Your task to perform on an android device: turn notification dots off Image 0: 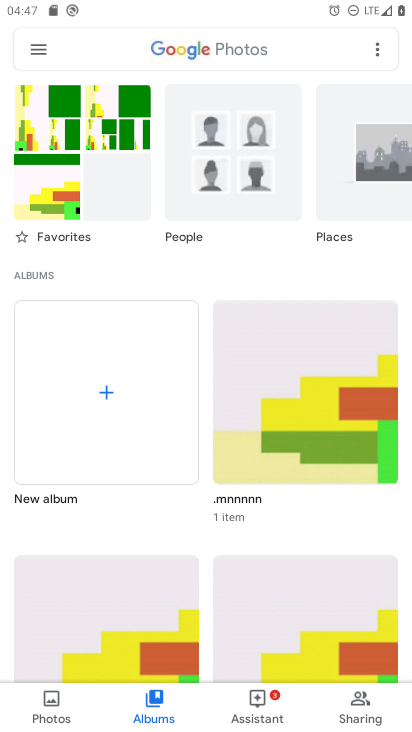
Step 0: press back button
Your task to perform on an android device: turn notification dots off Image 1: 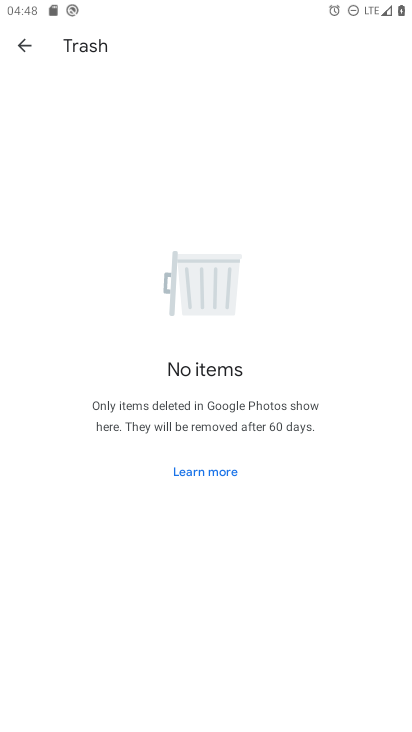
Step 1: press back button
Your task to perform on an android device: turn notification dots off Image 2: 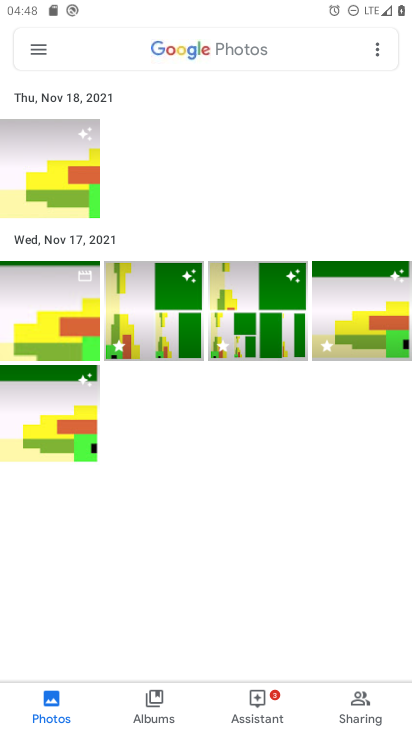
Step 2: press home button
Your task to perform on an android device: turn notification dots off Image 3: 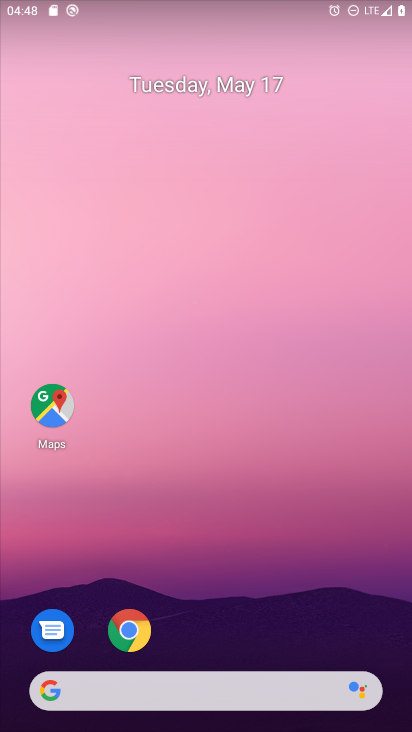
Step 3: drag from (204, 582) to (252, 38)
Your task to perform on an android device: turn notification dots off Image 4: 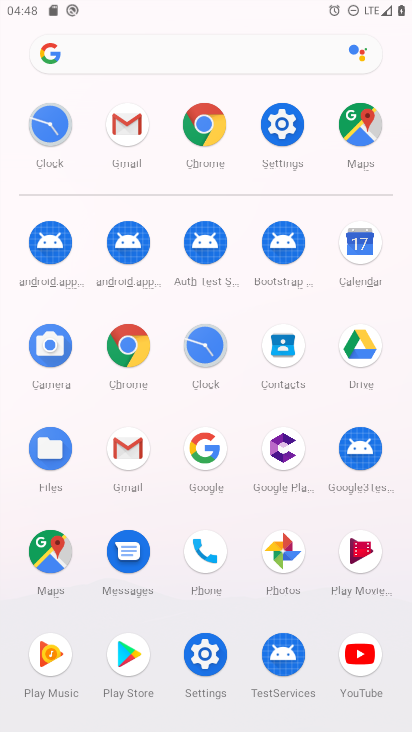
Step 4: click (289, 129)
Your task to perform on an android device: turn notification dots off Image 5: 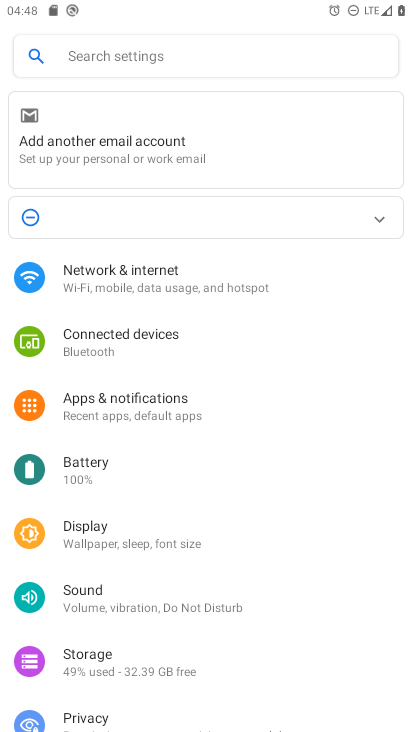
Step 5: click (123, 400)
Your task to perform on an android device: turn notification dots off Image 6: 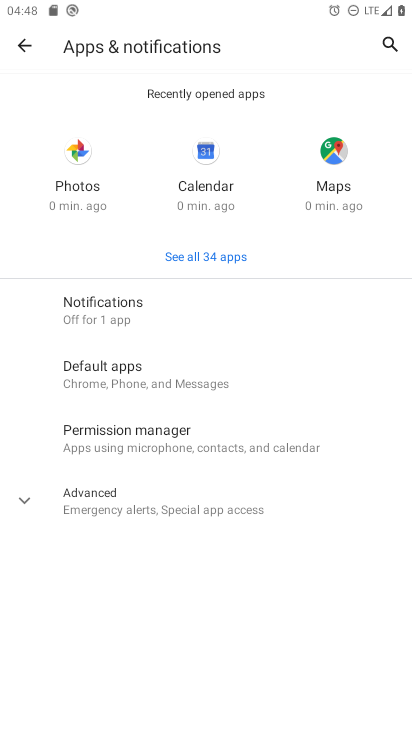
Step 6: click (144, 310)
Your task to perform on an android device: turn notification dots off Image 7: 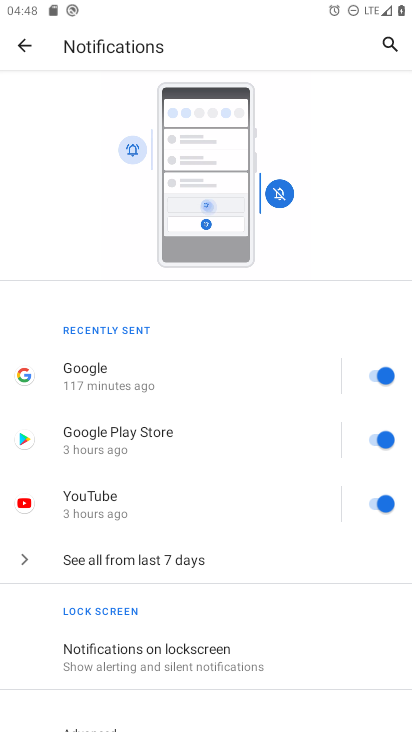
Step 7: drag from (175, 633) to (209, 152)
Your task to perform on an android device: turn notification dots off Image 8: 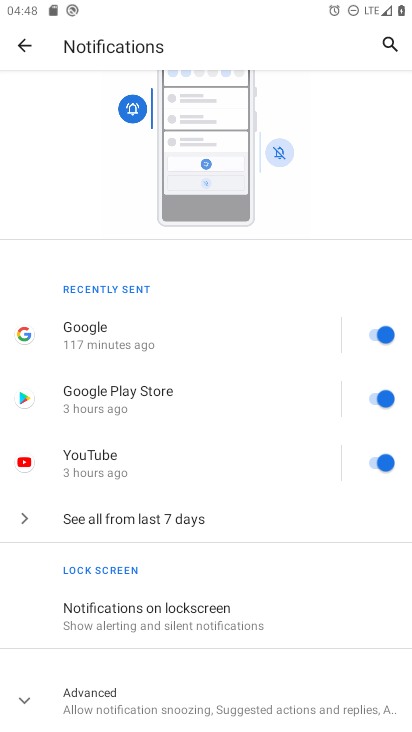
Step 8: click (139, 691)
Your task to perform on an android device: turn notification dots off Image 9: 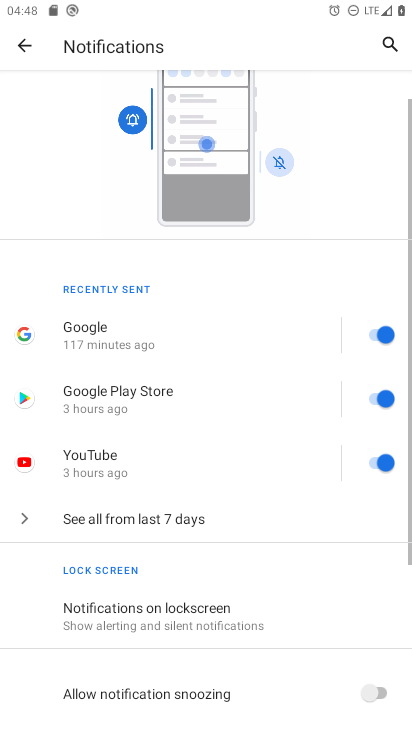
Step 9: drag from (189, 670) to (239, 216)
Your task to perform on an android device: turn notification dots off Image 10: 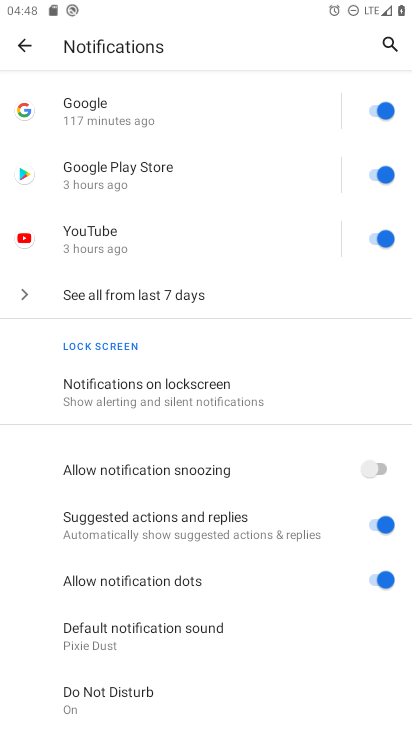
Step 10: click (392, 584)
Your task to perform on an android device: turn notification dots off Image 11: 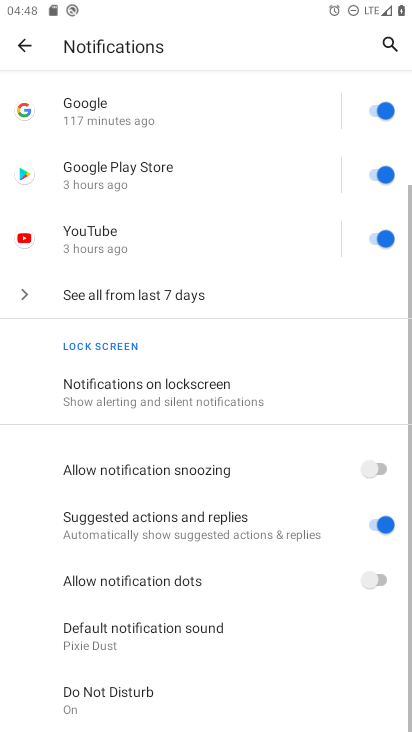
Step 11: task complete